Your task to perform on an android device: Search for Mexican restaurants on Maps Image 0: 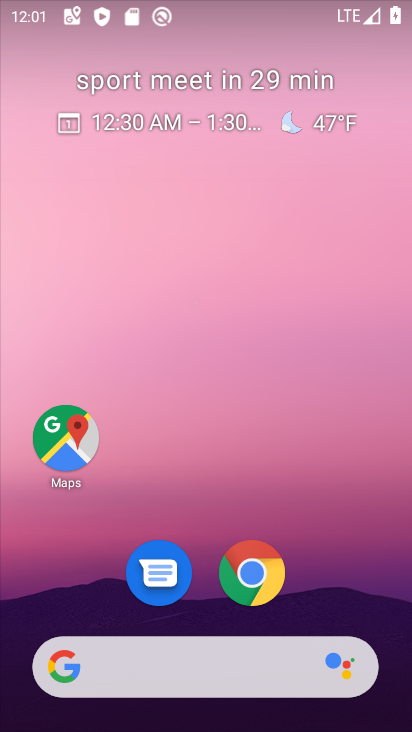
Step 0: drag from (207, 602) to (221, 89)
Your task to perform on an android device: Search for Mexican restaurants on Maps Image 1: 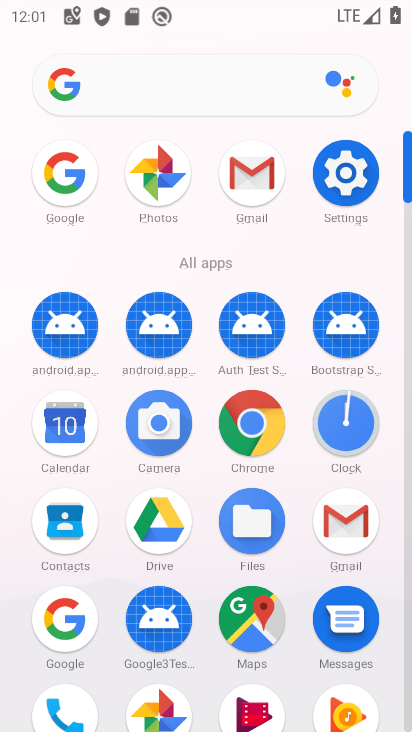
Step 1: click (259, 617)
Your task to perform on an android device: Search for Mexican restaurants on Maps Image 2: 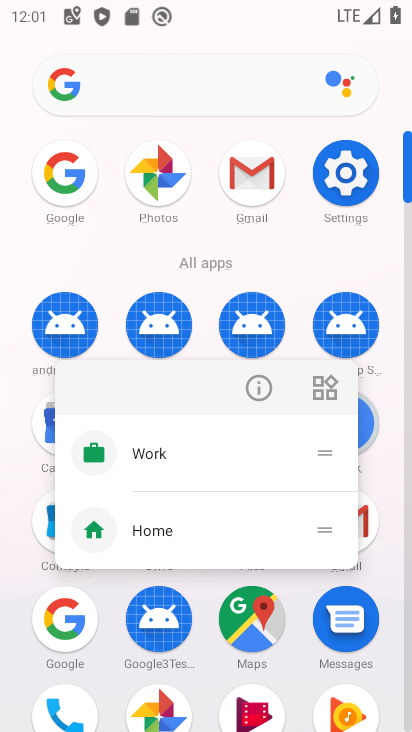
Step 2: click (256, 389)
Your task to perform on an android device: Search for Mexican restaurants on Maps Image 3: 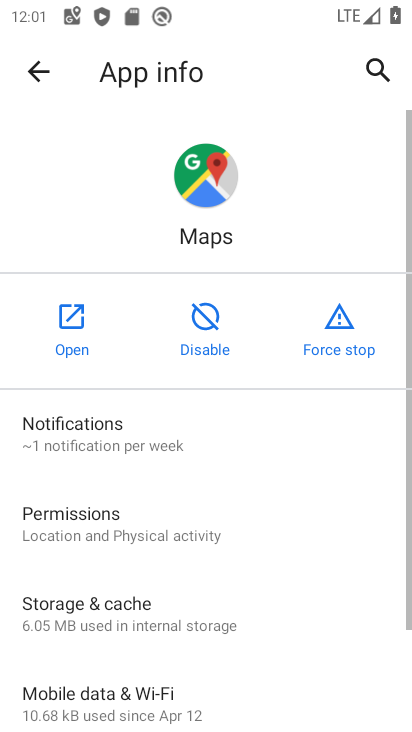
Step 3: click (59, 329)
Your task to perform on an android device: Search for Mexican restaurants on Maps Image 4: 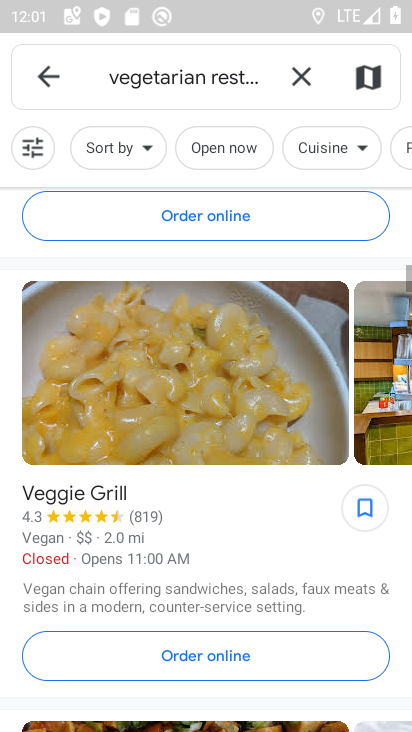
Step 4: click (304, 76)
Your task to perform on an android device: Search for Mexican restaurants on Maps Image 5: 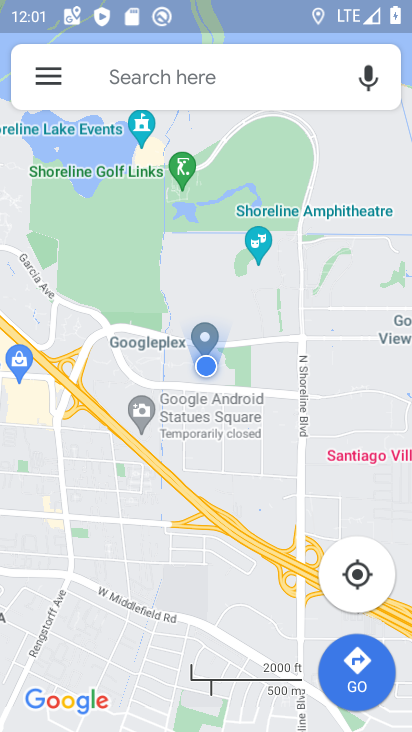
Step 5: click (291, 75)
Your task to perform on an android device: Search for Mexican restaurants on Maps Image 6: 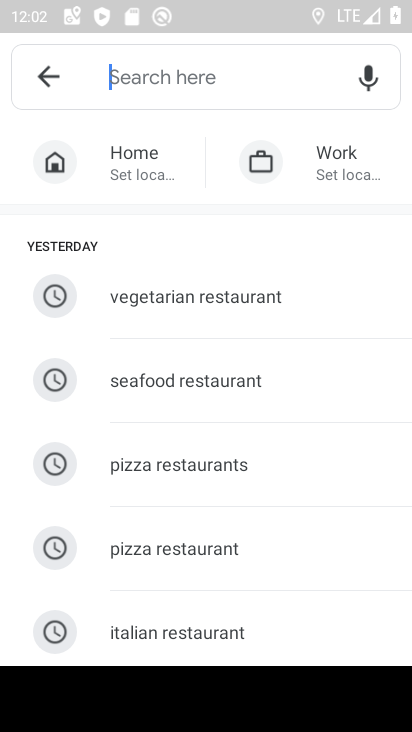
Step 6: drag from (212, 623) to (219, 290)
Your task to perform on an android device: Search for Mexican restaurants on Maps Image 7: 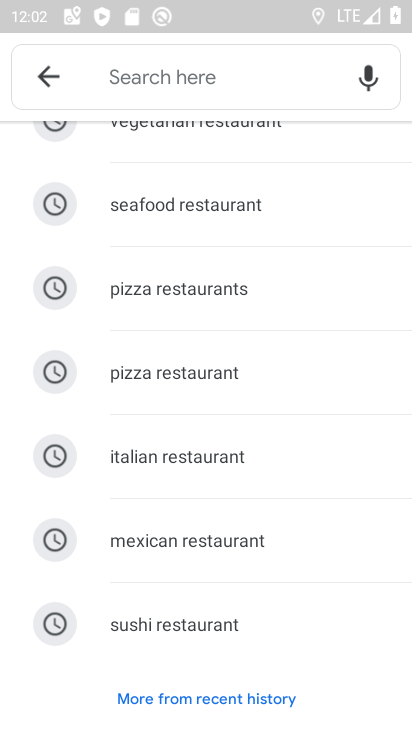
Step 7: click (229, 557)
Your task to perform on an android device: Search for Mexican restaurants on Maps Image 8: 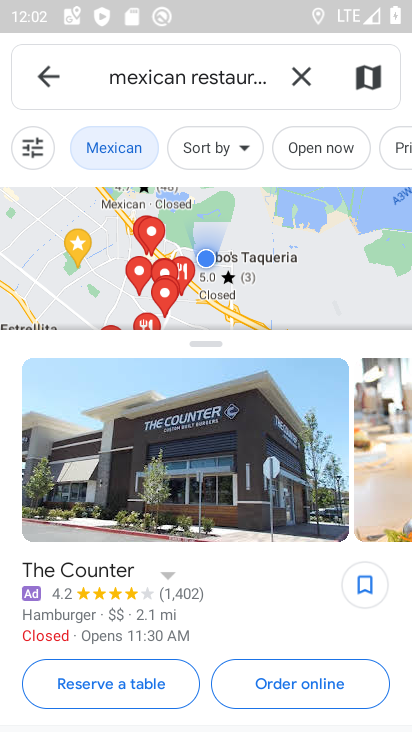
Step 8: task complete